Your task to perform on an android device: Show me recent news Image 0: 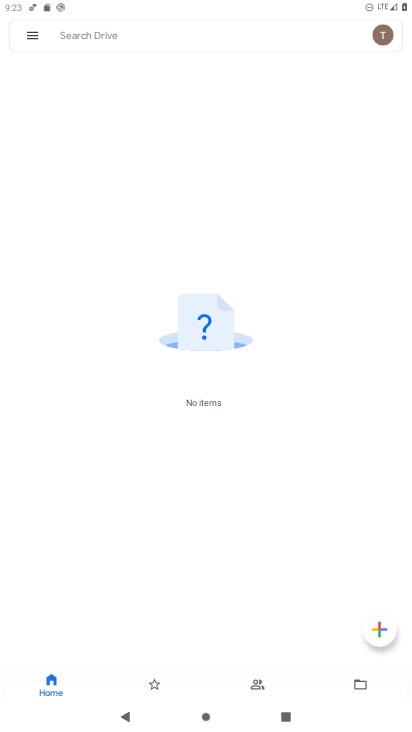
Step 0: press home button
Your task to perform on an android device: Show me recent news Image 1: 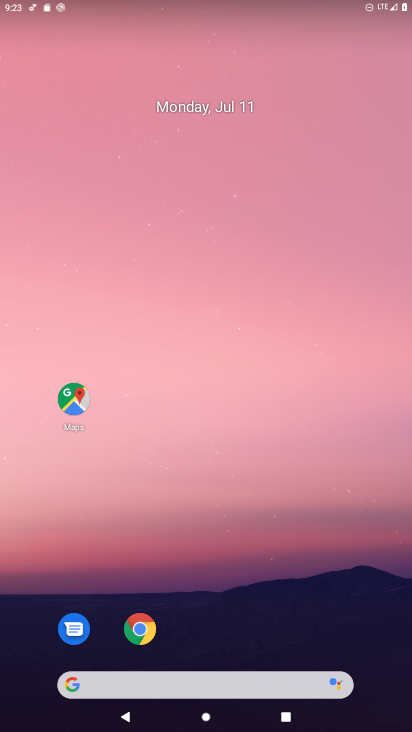
Step 1: click (143, 634)
Your task to perform on an android device: Show me recent news Image 2: 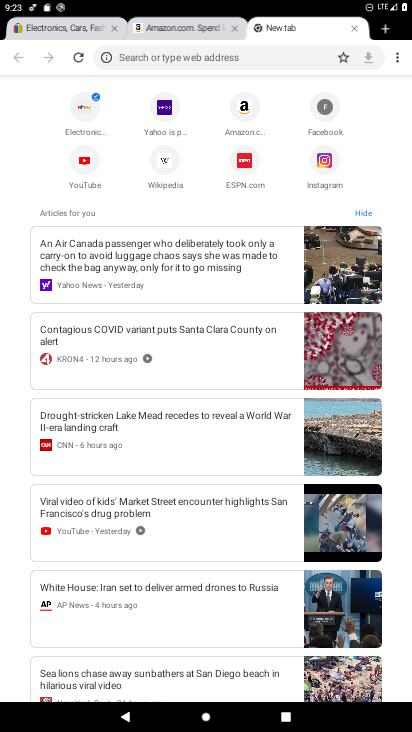
Step 2: task complete